Your task to perform on an android device: What's on my calendar tomorrow? Image 0: 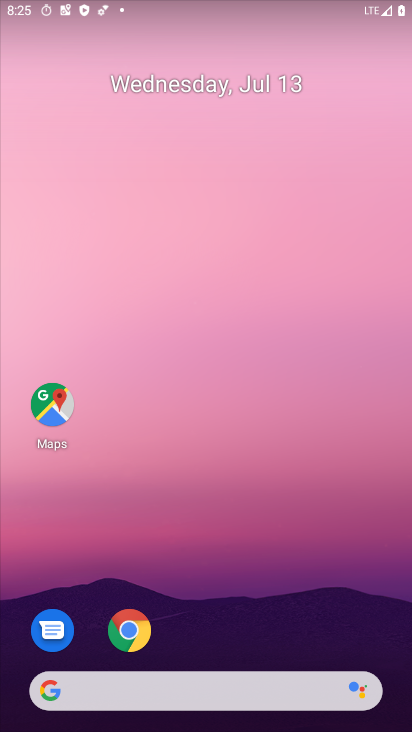
Step 0: drag from (356, 606) to (361, 145)
Your task to perform on an android device: What's on my calendar tomorrow? Image 1: 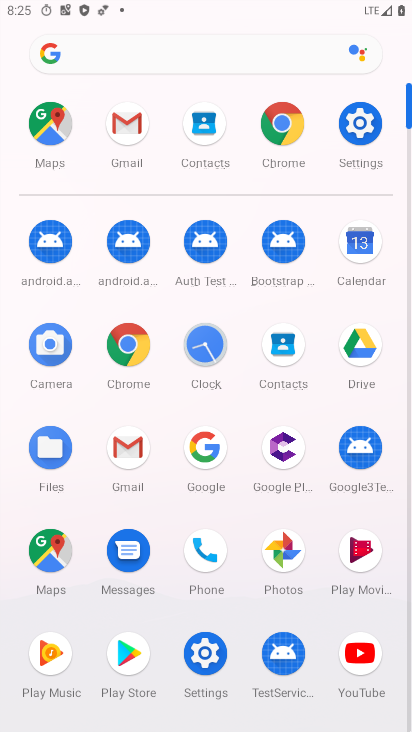
Step 1: click (359, 238)
Your task to perform on an android device: What's on my calendar tomorrow? Image 2: 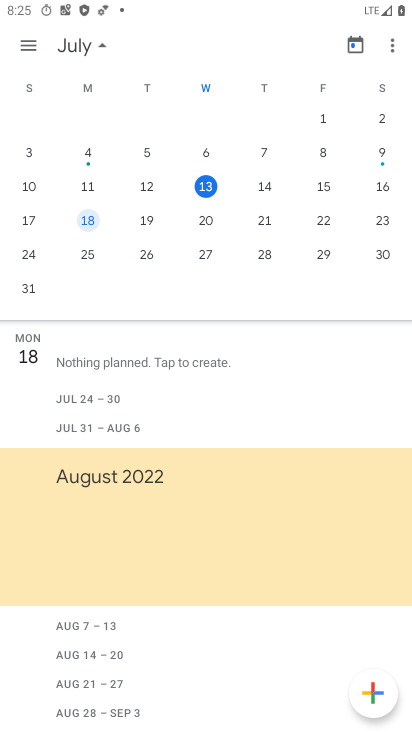
Step 2: click (261, 185)
Your task to perform on an android device: What's on my calendar tomorrow? Image 3: 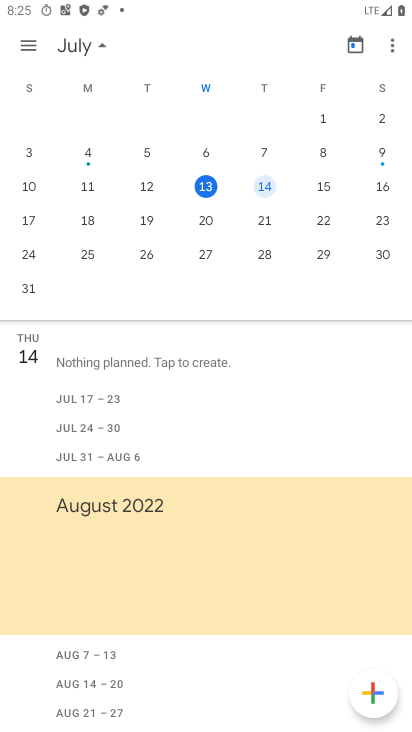
Step 3: task complete